Your task to perform on an android device: change notification settings in the gmail app Image 0: 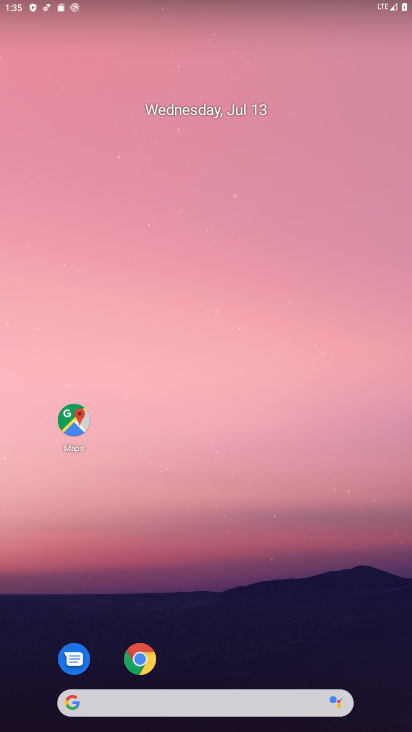
Step 0: drag from (383, 689) to (383, 123)
Your task to perform on an android device: change notification settings in the gmail app Image 1: 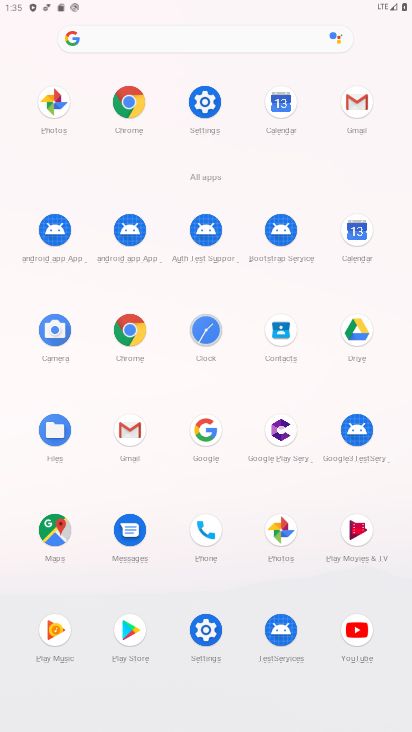
Step 1: click (127, 428)
Your task to perform on an android device: change notification settings in the gmail app Image 2: 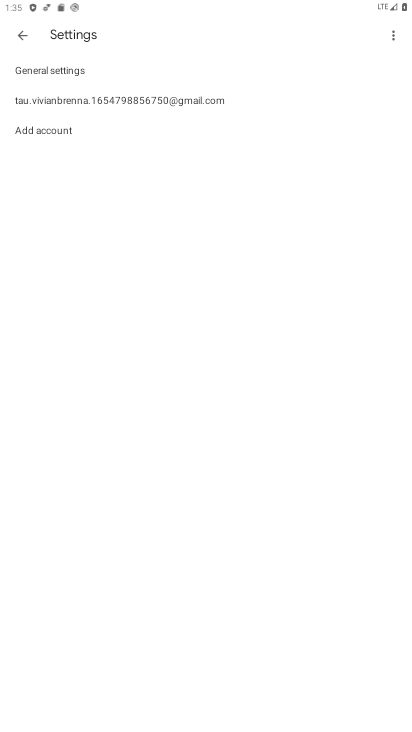
Step 2: click (60, 94)
Your task to perform on an android device: change notification settings in the gmail app Image 3: 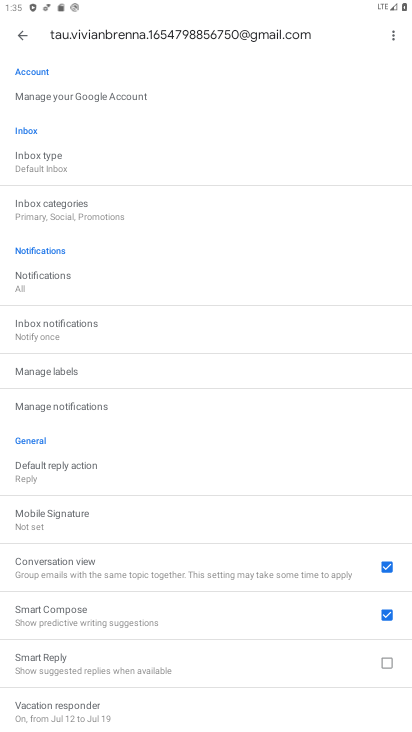
Step 3: click (73, 405)
Your task to perform on an android device: change notification settings in the gmail app Image 4: 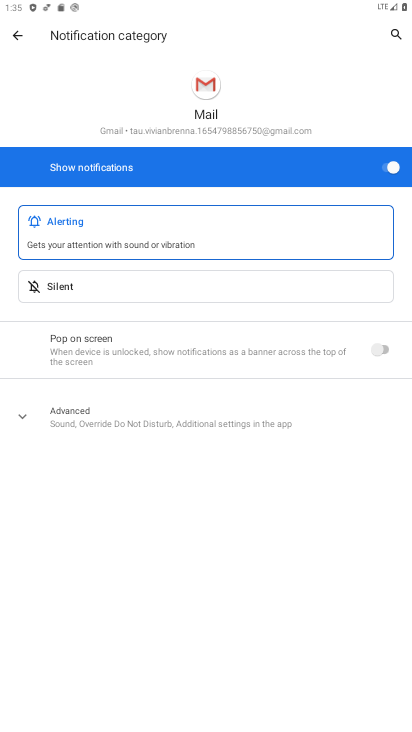
Step 4: click (384, 168)
Your task to perform on an android device: change notification settings in the gmail app Image 5: 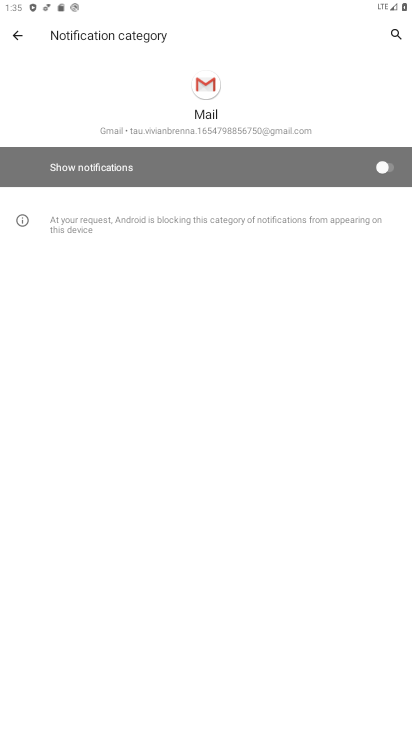
Step 5: task complete